Your task to perform on an android device: Show me popular videos on Youtube Image 0: 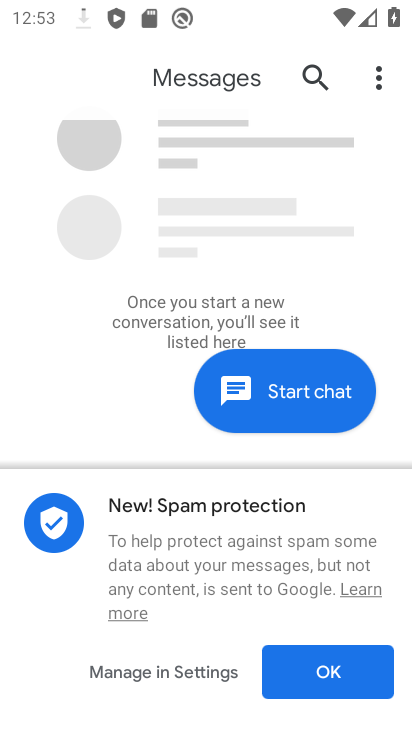
Step 0: press home button
Your task to perform on an android device: Show me popular videos on Youtube Image 1: 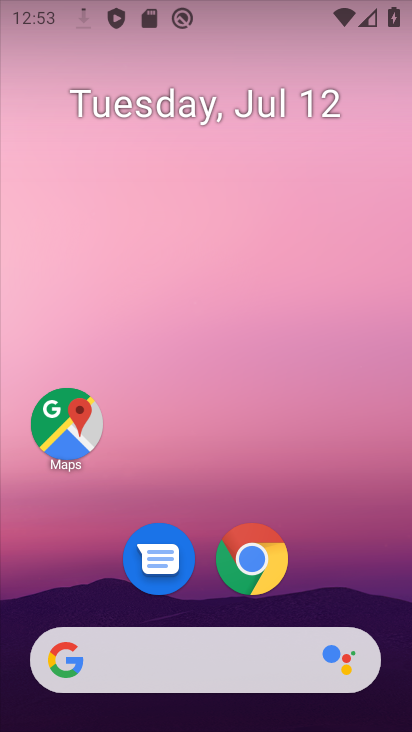
Step 1: drag from (344, 594) to (344, 149)
Your task to perform on an android device: Show me popular videos on Youtube Image 2: 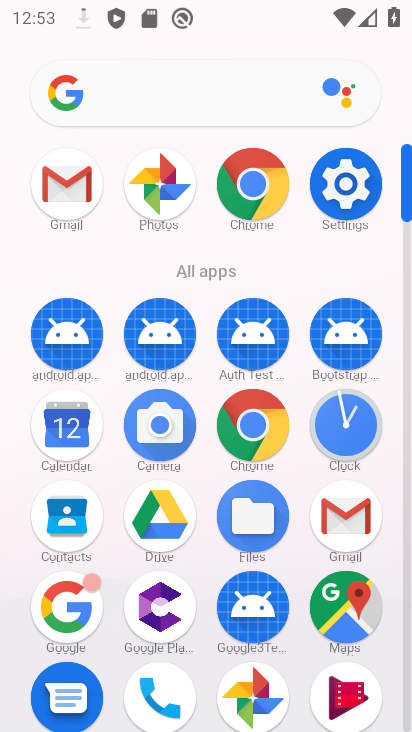
Step 2: drag from (392, 626) to (388, 324)
Your task to perform on an android device: Show me popular videos on Youtube Image 3: 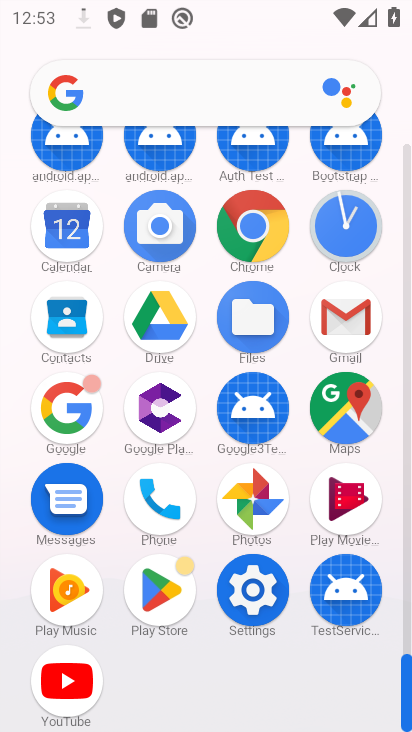
Step 3: click (61, 679)
Your task to perform on an android device: Show me popular videos on Youtube Image 4: 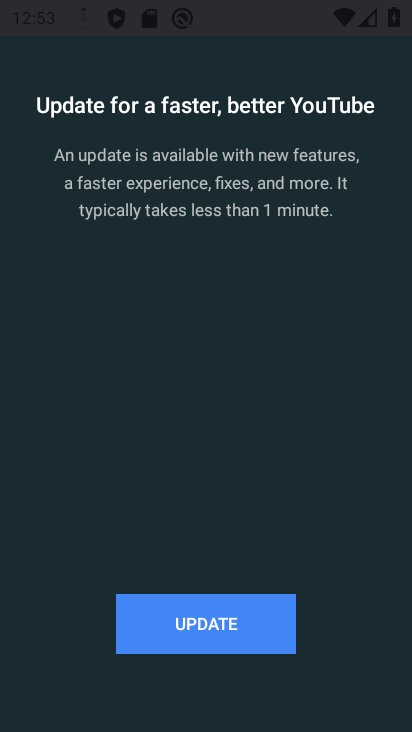
Step 4: click (219, 624)
Your task to perform on an android device: Show me popular videos on Youtube Image 5: 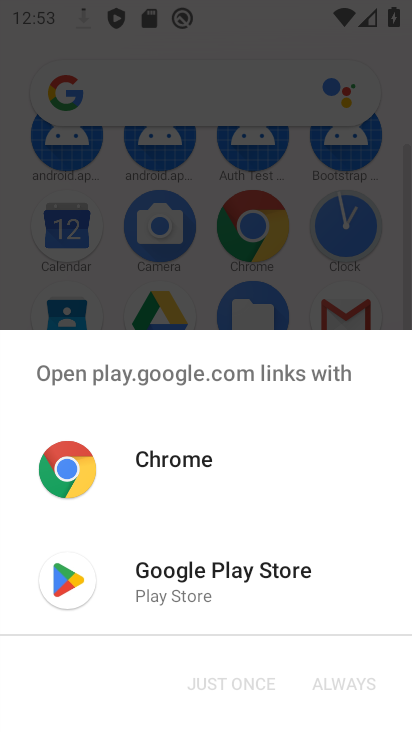
Step 5: click (182, 588)
Your task to perform on an android device: Show me popular videos on Youtube Image 6: 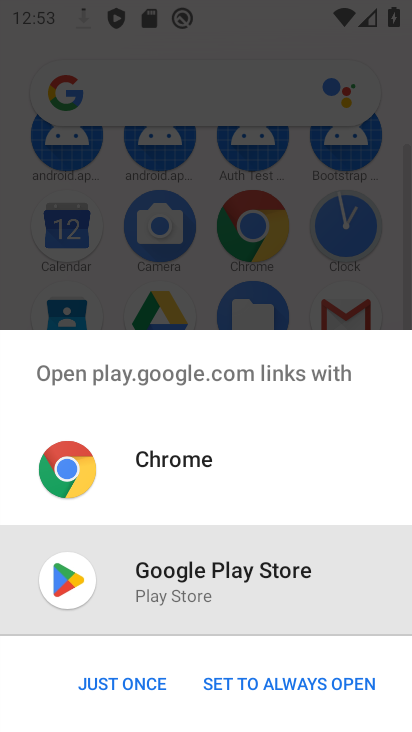
Step 6: click (114, 681)
Your task to perform on an android device: Show me popular videos on Youtube Image 7: 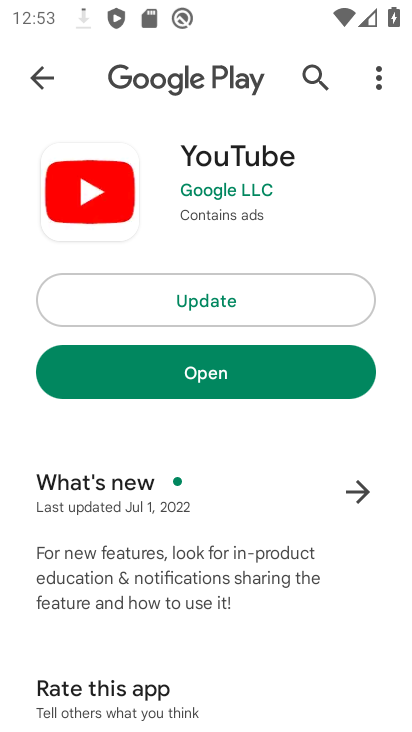
Step 7: click (200, 300)
Your task to perform on an android device: Show me popular videos on Youtube Image 8: 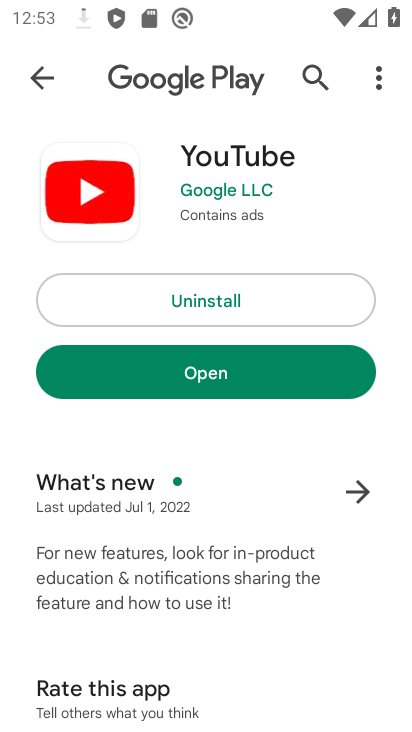
Step 8: click (286, 379)
Your task to perform on an android device: Show me popular videos on Youtube Image 9: 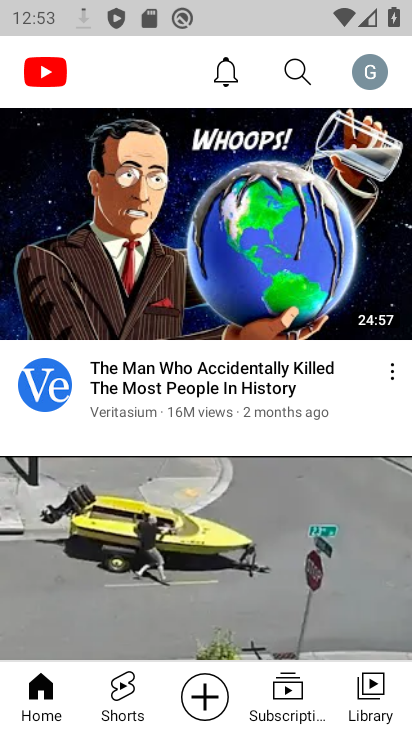
Step 9: task complete